Your task to perform on an android device: Open notification settings Image 0: 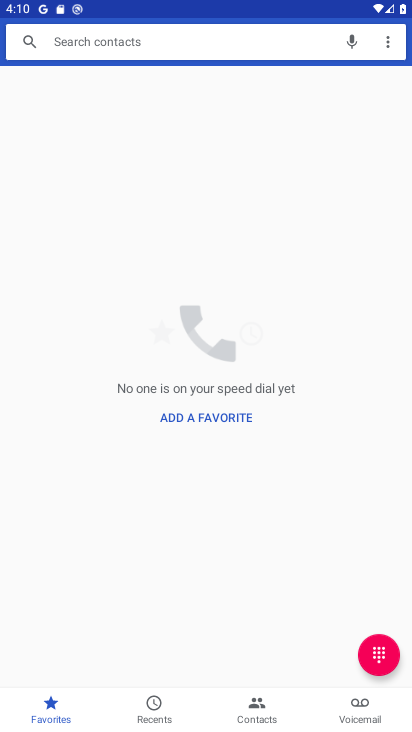
Step 0: press home button
Your task to perform on an android device: Open notification settings Image 1: 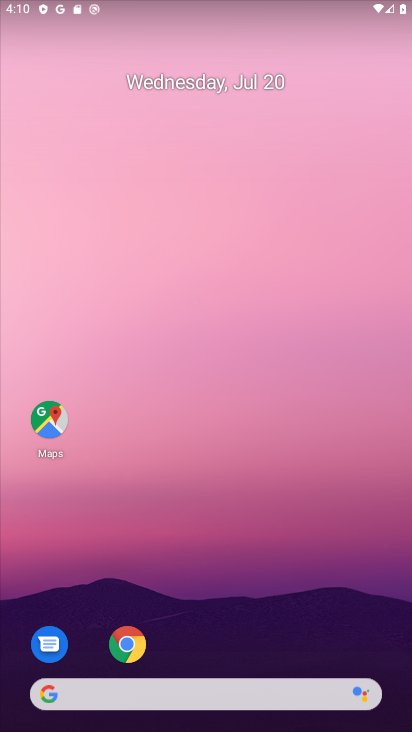
Step 1: drag from (250, 625) to (238, 98)
Your task to perform on an android device: Open notification settings Image 2: 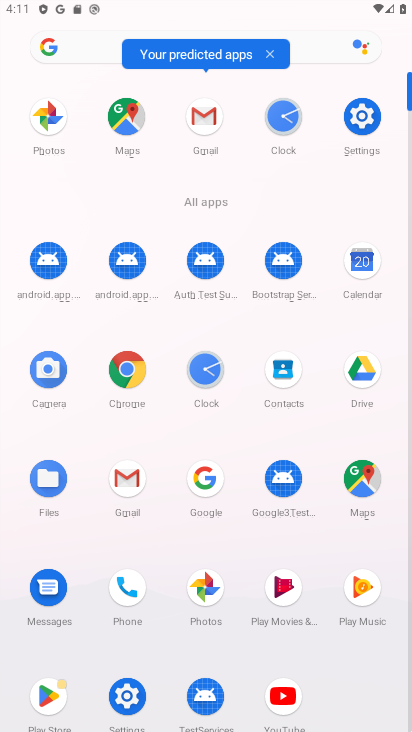
Step 2: click (373, 115)
Your task to perform on an android device: Open notification settings Image 3: 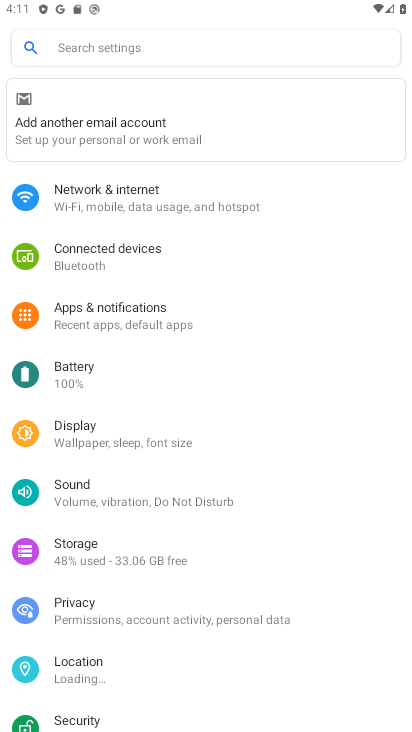
Step 3: click (116, 305)
Your task to perform on an android device: Open notification settings Image 4: 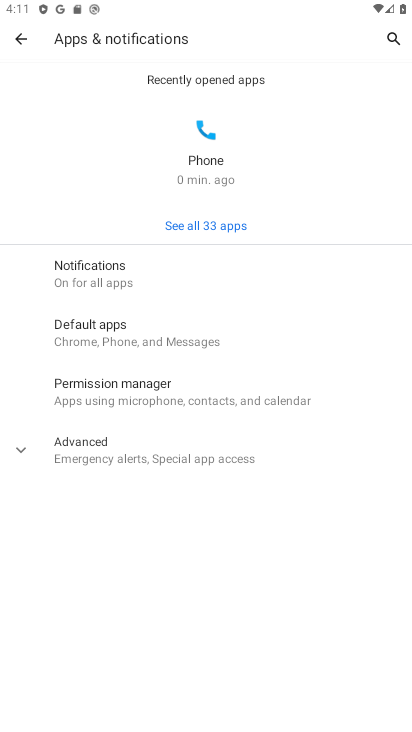
Step 4: click (98, 270)
Your task to perform on an android device: Open notification settings Image 5: 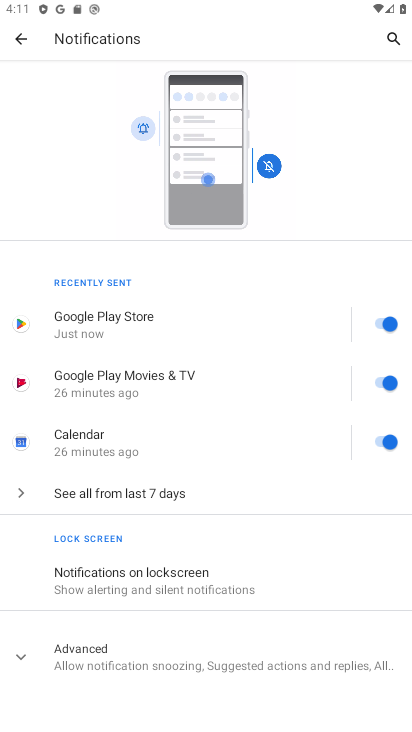
Step 5: task complete